Your task to perform on an android device: Go to settings Image 0: 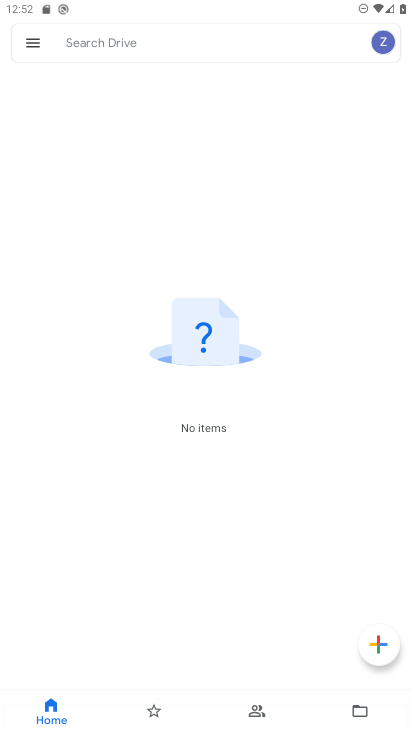
Step 0: drag from (197, 1) to (259, 585)
Your task to perform on an android device: Go to settings Image 1: 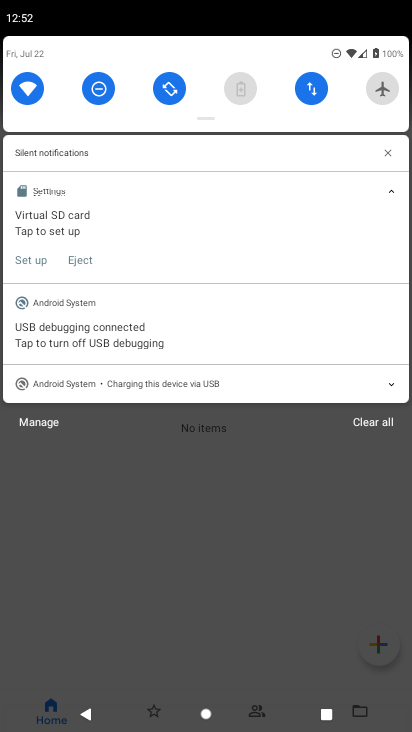
Step 1: drag from (272, 59) to (236, 601)
Your task to perform on an android device: Go to settings Image 2: 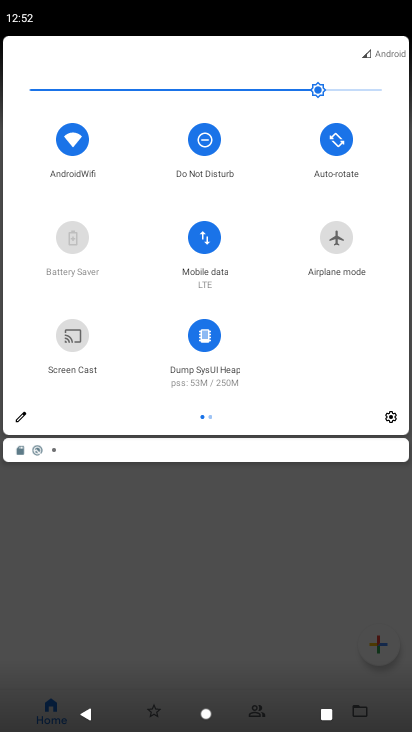
Step 2: click (385, 414)
Your task to perform on an android device: Go to settings Image 3: 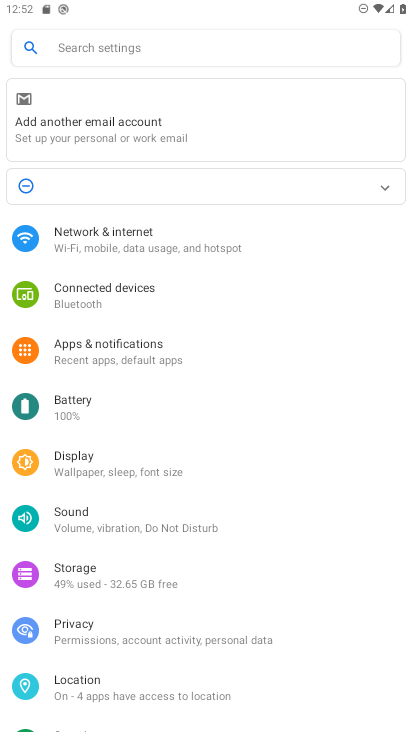
Step 3: task complete